Your task to perform on an android device: change the clock style Image 0: 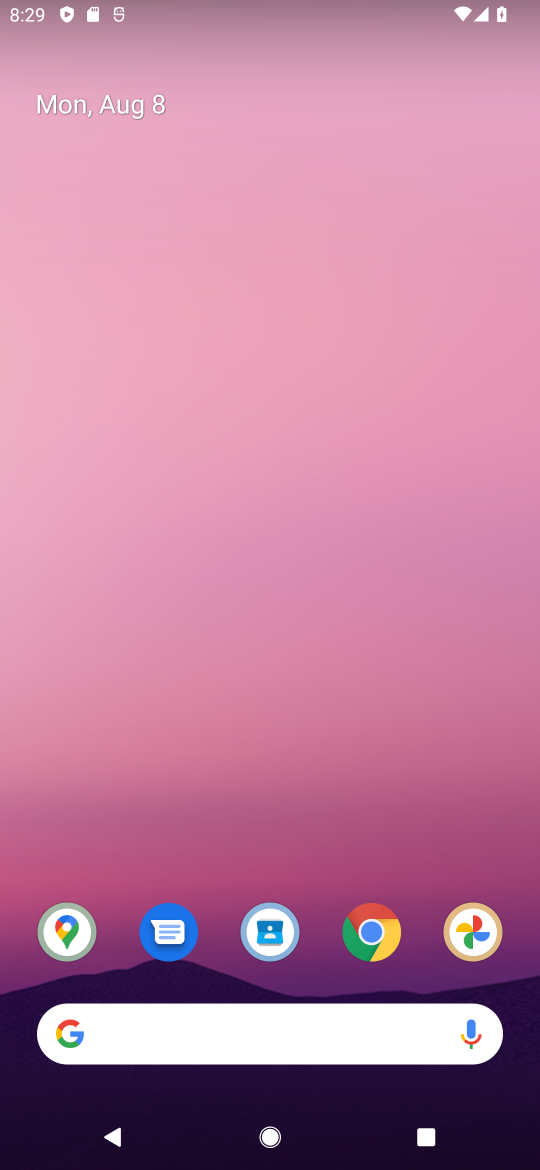
Step 0: click (301, 68)
Your task to perform on an android device: change the clock style Image 1: 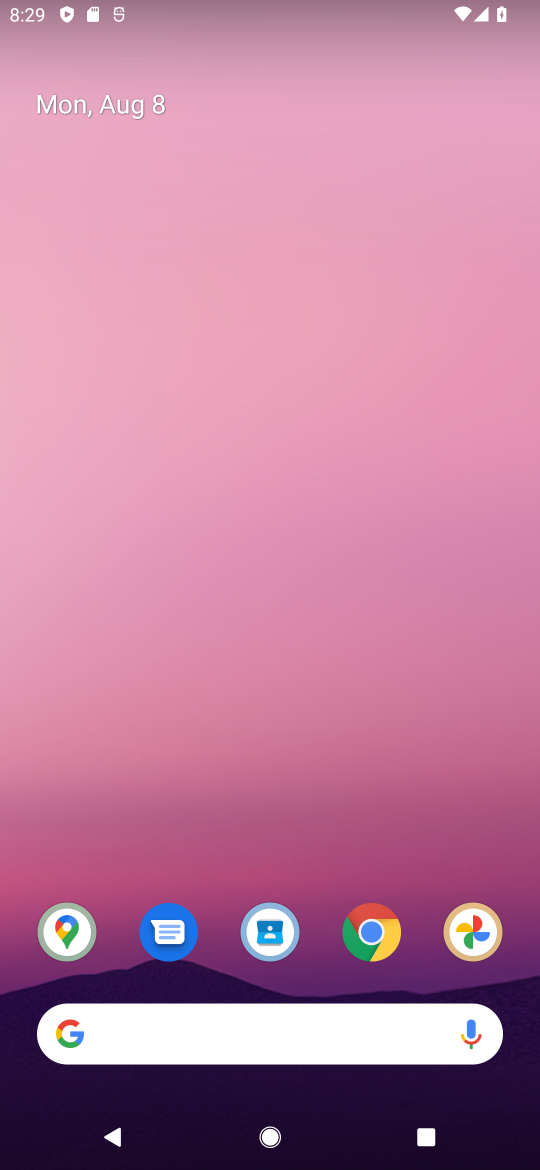
Step 1: drag from (204, 892) to (268, 120)
Your task to perform on an android device: change the clock style Image 2: 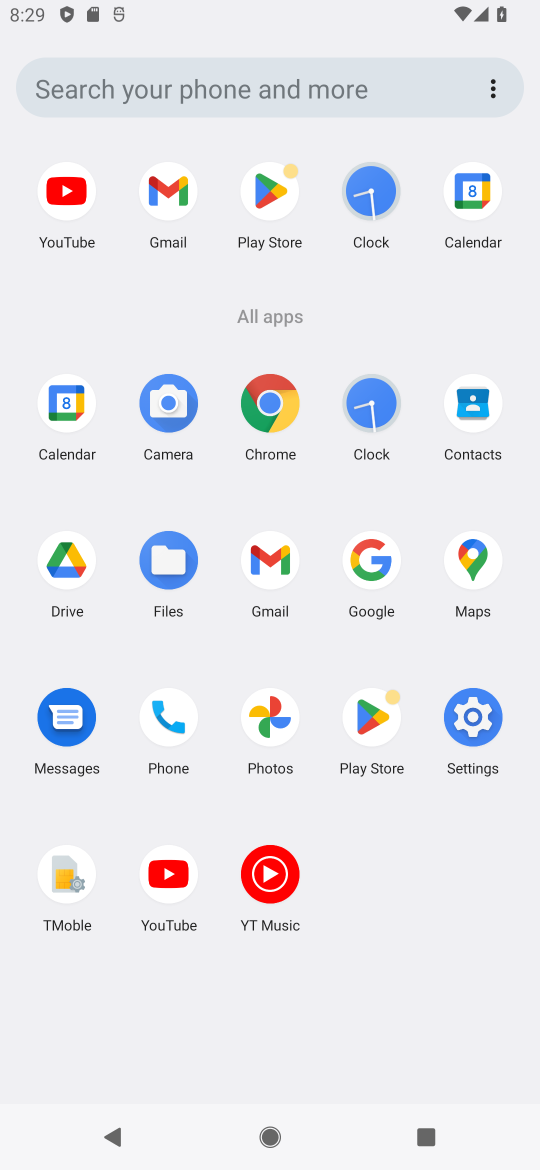
Step 2: click (378, 405)
Your task to perform on an android device: change the clock style Image 3: 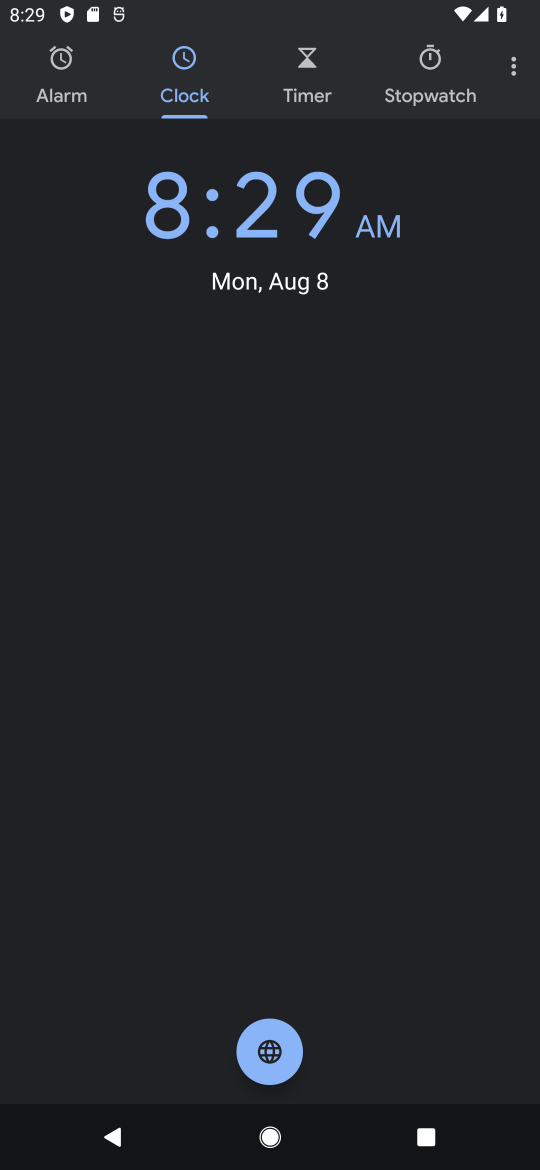
Step 3: click (506, 53)
Your task to perform on an android device: change the clock style Image 4: 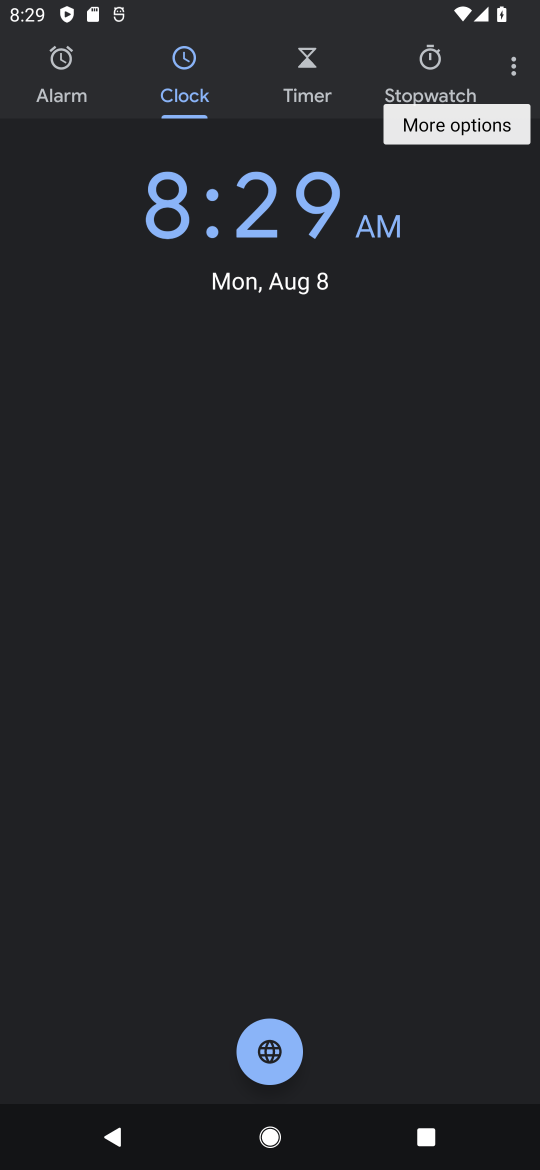
Step 4: click (512, 76)
Your task to perform on an android device: change the clock style Image 5: 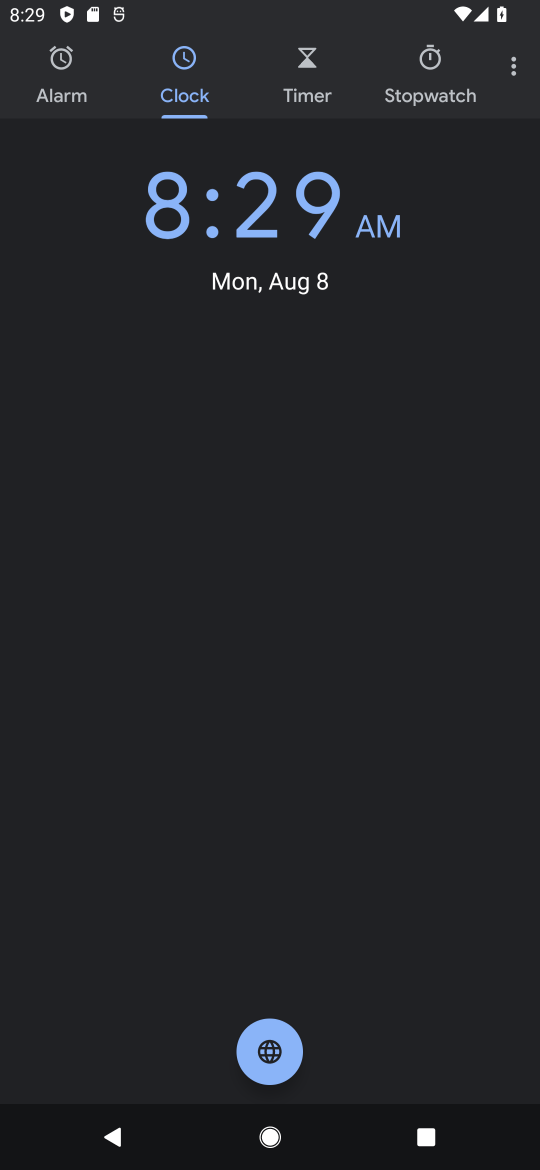
Step 5: click (511, 56)
Your task to perform on an android device: change the clock style Image 6: 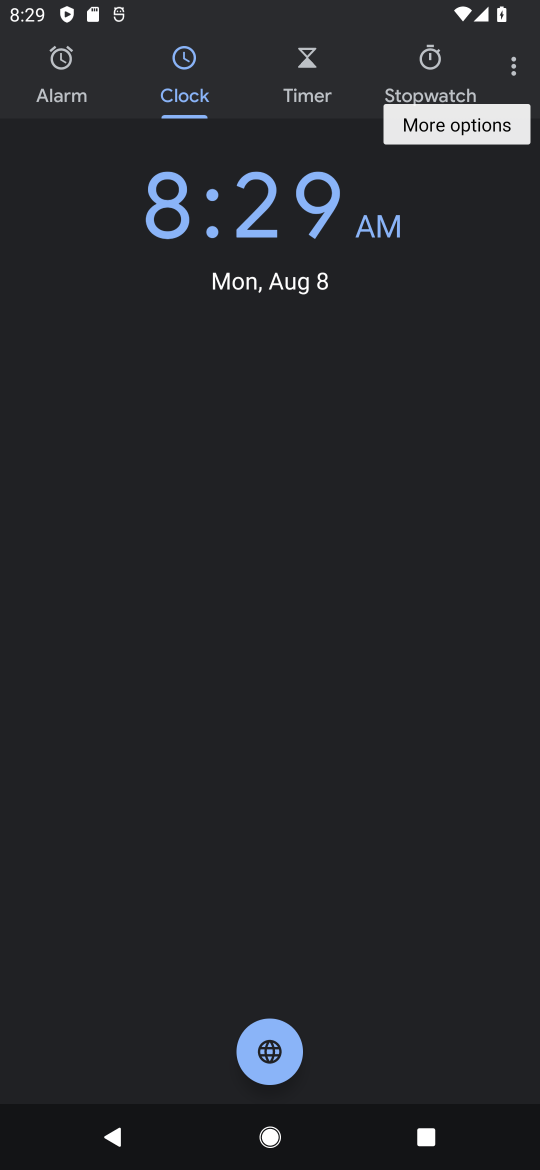
Step 6: click (518, 65)
Your task to perform on an android device: change the clock style Image 7: 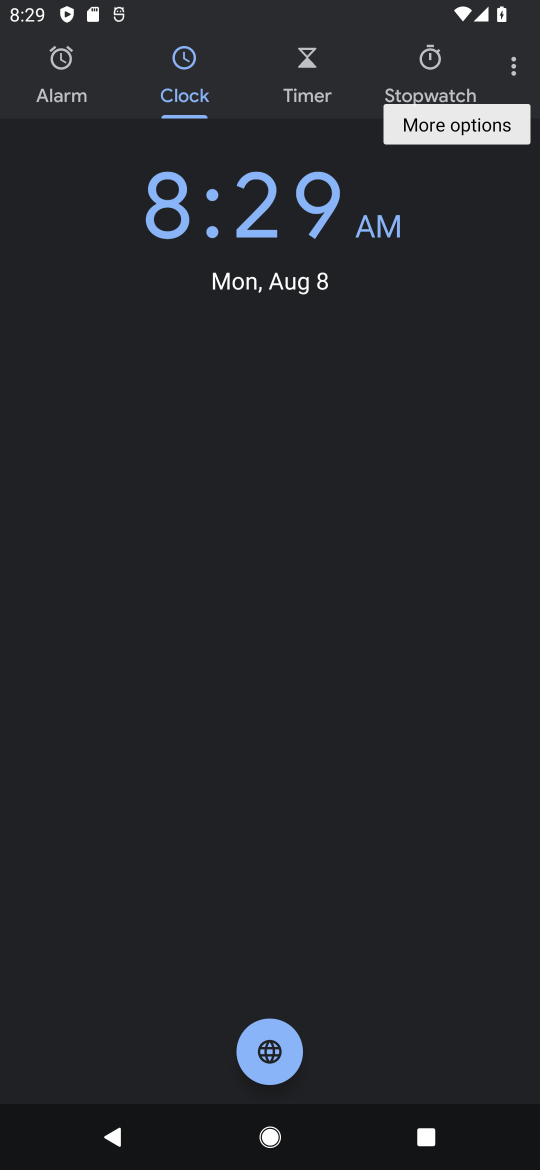
Step 7: click (518, 76)
Your task to perform on an android device: change the clock style Image 8: 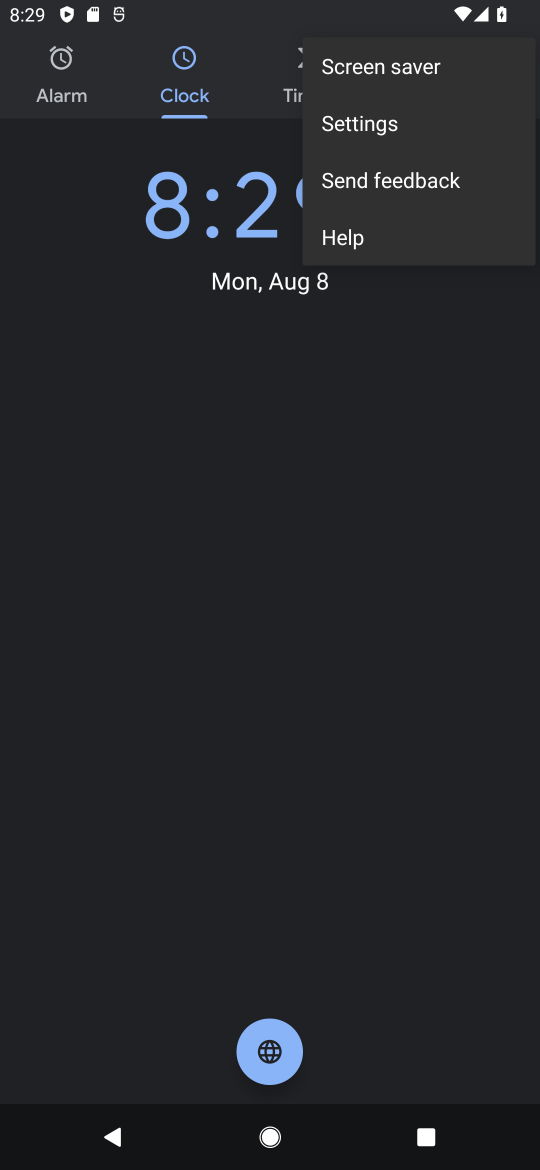
Step 8: click (371, 113)
Your task to perform on an android device: change the clock style Image 9: 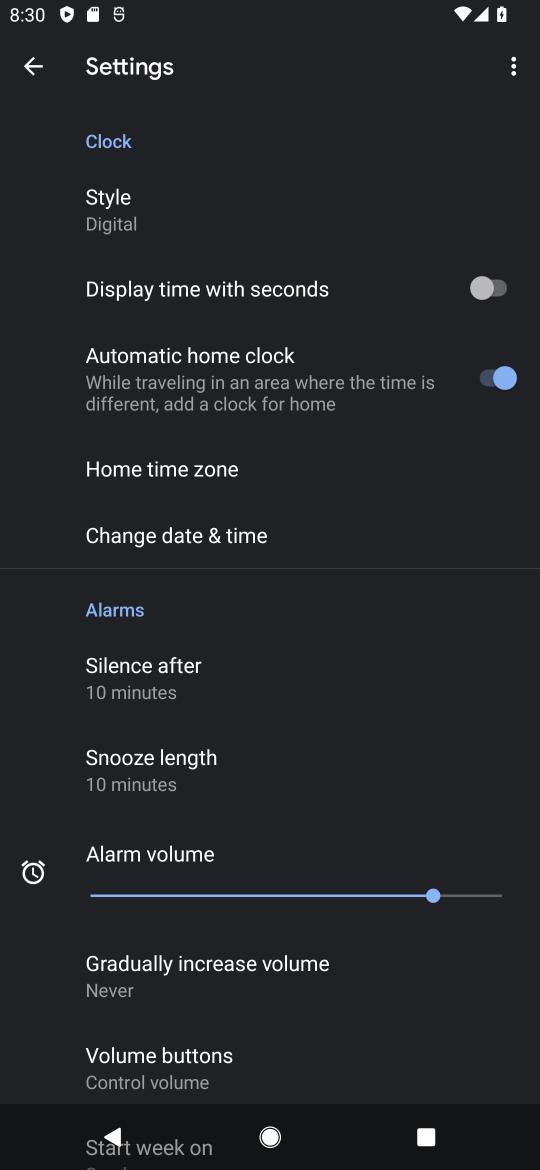
Step 9: click (163, 203)
Your task to perform on an android device: change the clock style Image 10: 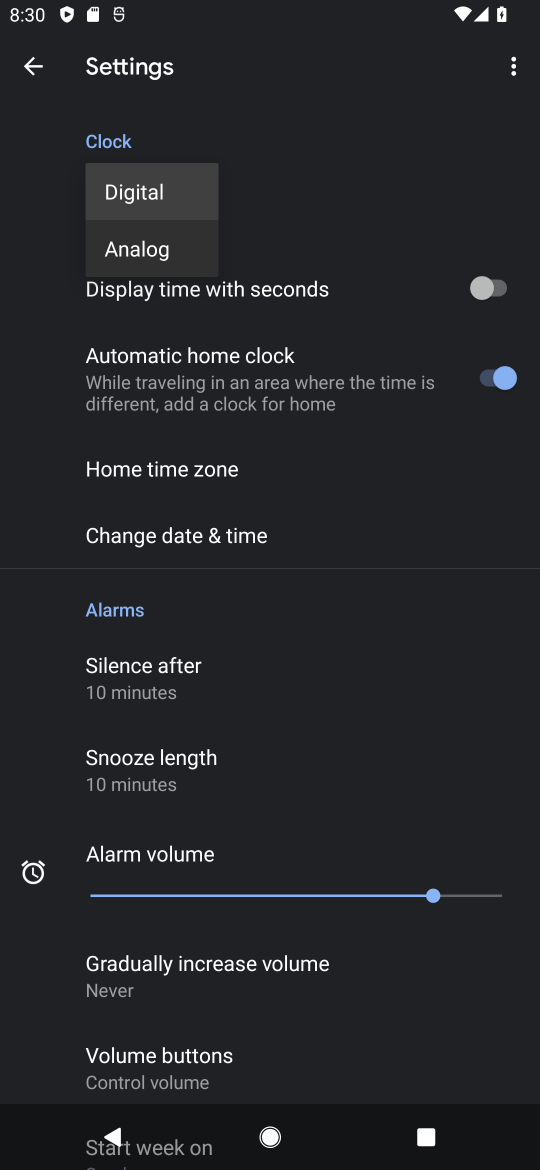
Step 10: click (137, 255)
Your task to perform on an android device: change the clock style Image 11: 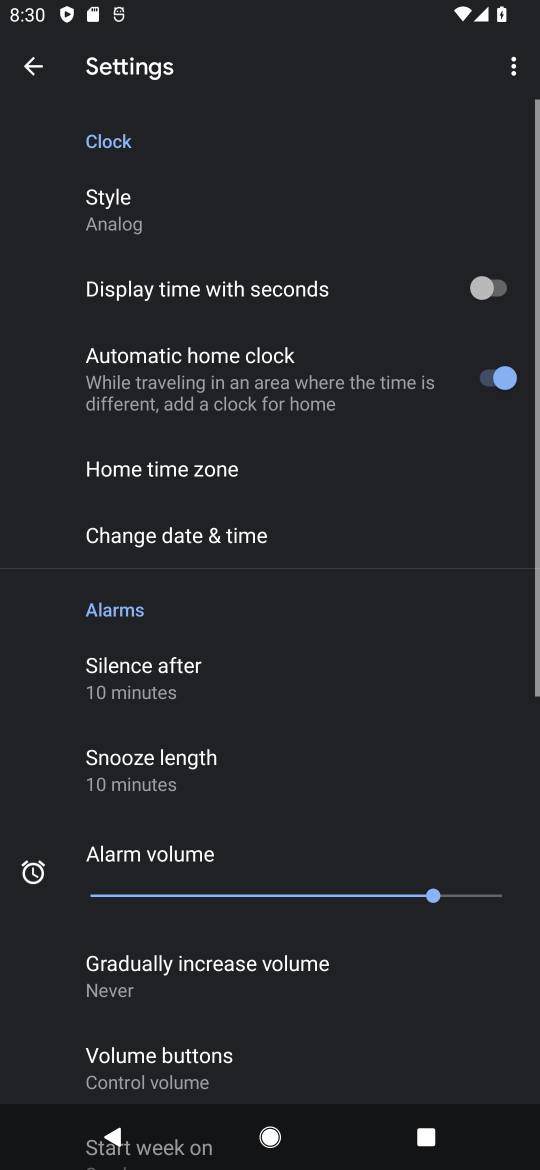
Step 11: task complete